Your task to perform on an android device: check the backup settings in the google photos Image 0: 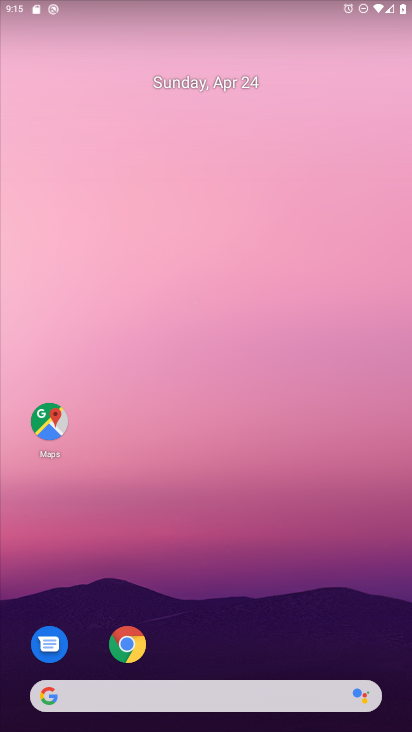
Step 0: drag from (210, 669) to (182, 106)
Your task to perform on an android device: check the backup settings in the google photos Image 1: 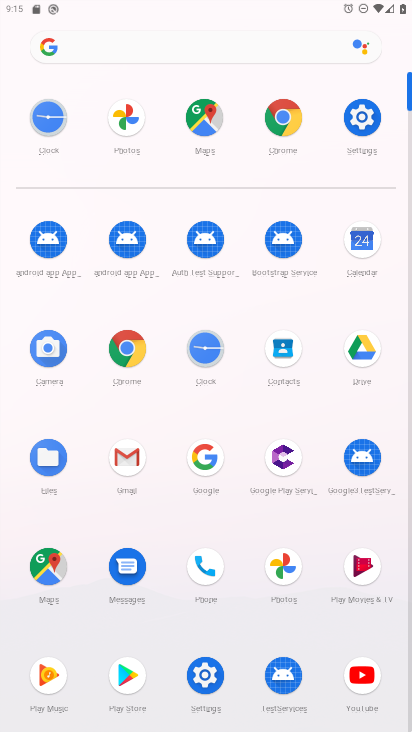
Step 1: click (286, 570)
Your task to perform on an android device: check the backup settings in the google photos Image 2: 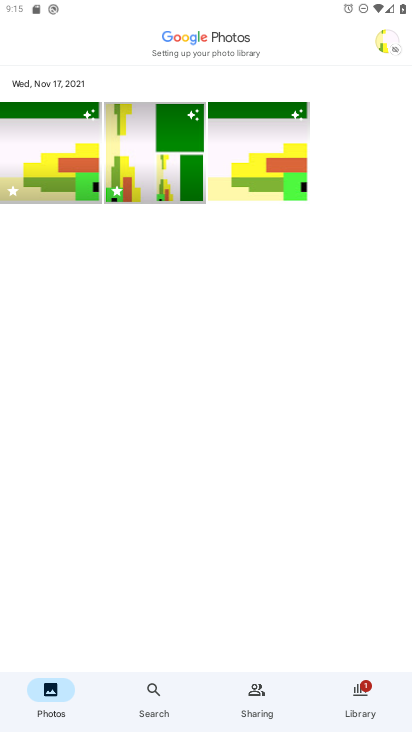
Step 2: click (384, 37)
Your task to perform on an android device: check the backup settings in the google photos Image 3: 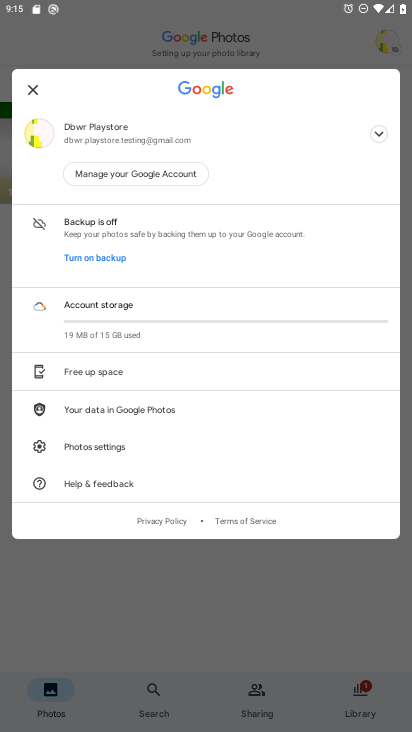
Step 3: click (85, 438)
Your task to perform on an android device: check the backup settings in the google photos Image 4: 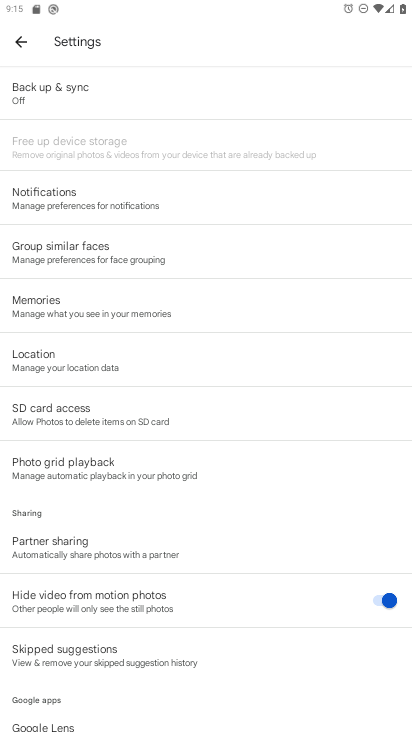
Step 4: click (44, 100)
Your task to perform on an android device: check the backup settings in the google photos Image 5: 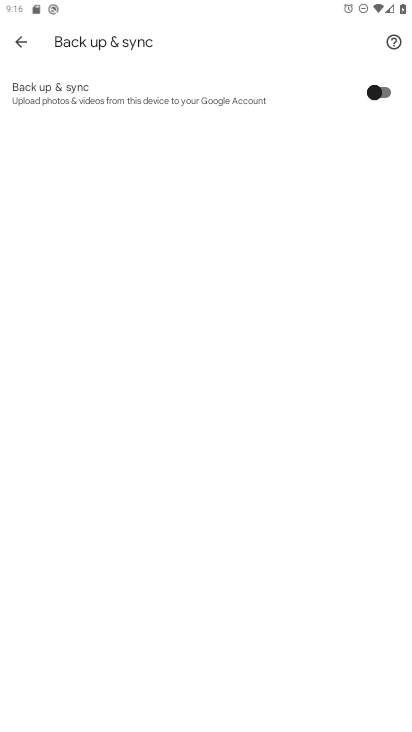
Step 5: click (384, 93)
Your task to perform on an android device: check the backup settings in the google photos Image 6: 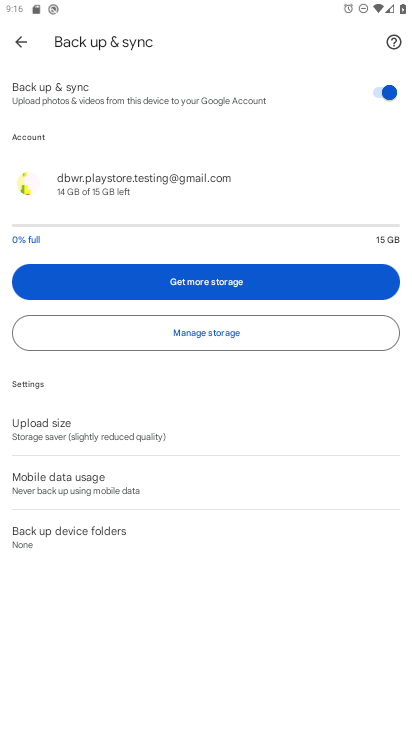
Step 6: task complete